Your task to perform on an android device: Open sound settings Image 0: 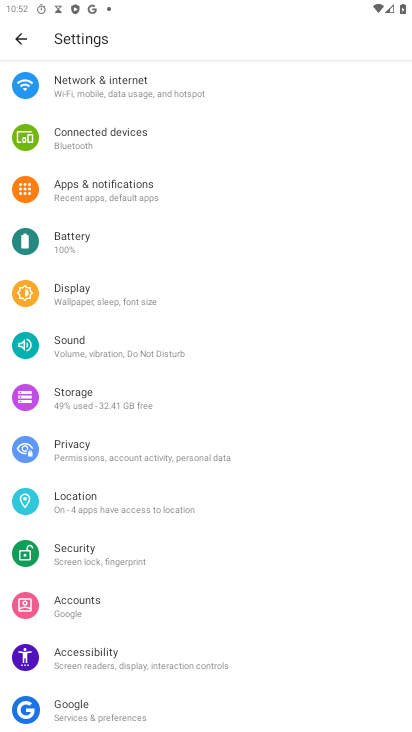
Step 0: click (232, 345)
Your task to perform on an android device: Open sound settings Image 1: 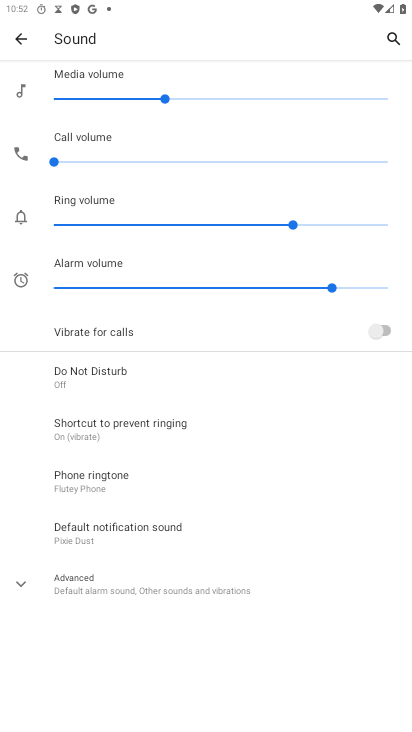
Step 1: task complete